Your task to perform on an android device: see tabs open on other devices in the chrome app Image 0: 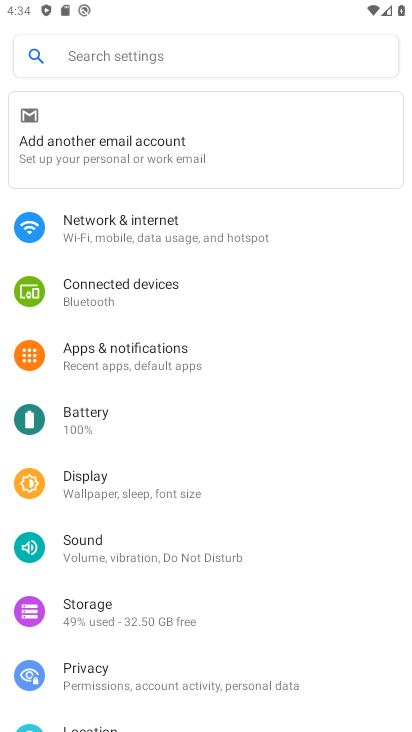
Step 0: press home button
Your task to perform on an android device: see tabs open on other devices in the chrome app Image 1: 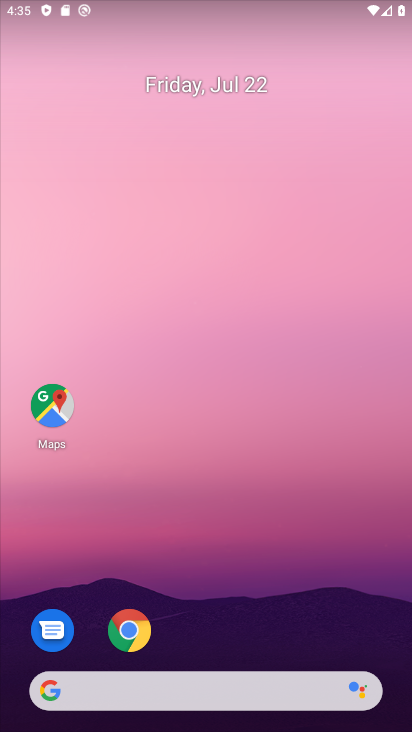
Step 1: click (122, 631)
Your task to perform on an android device: see tabs open on other devices in the chrome app Image 2: 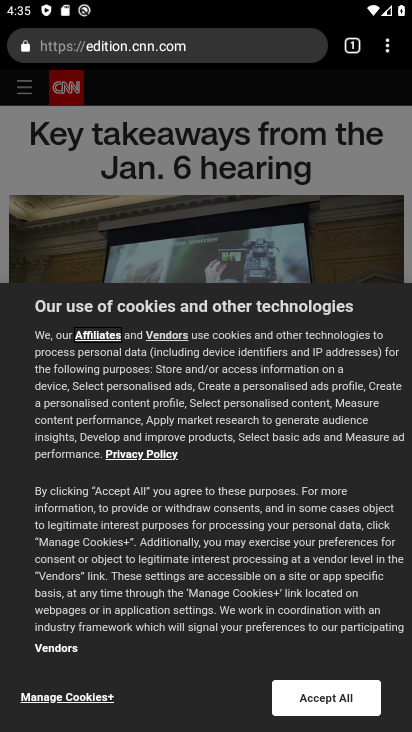
Step 2: click (390, 48)
Your task to perform on an android device: see tabs open on other devices in the chrome app Image 3: 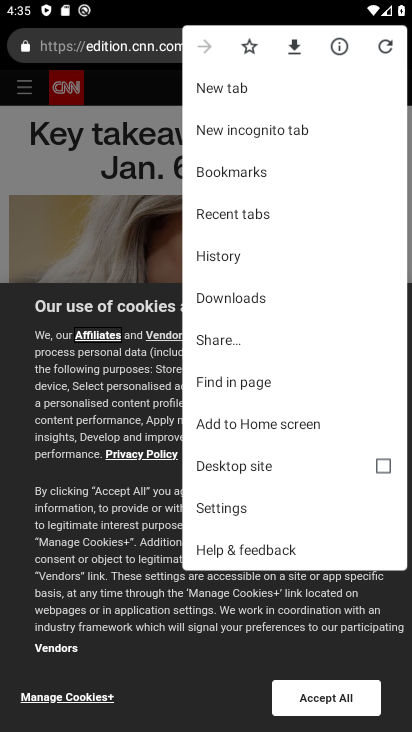
Step 3: click (246, 222)
Your task to perform on an android device: see tabs open on other devices in the chrome app Image 4: 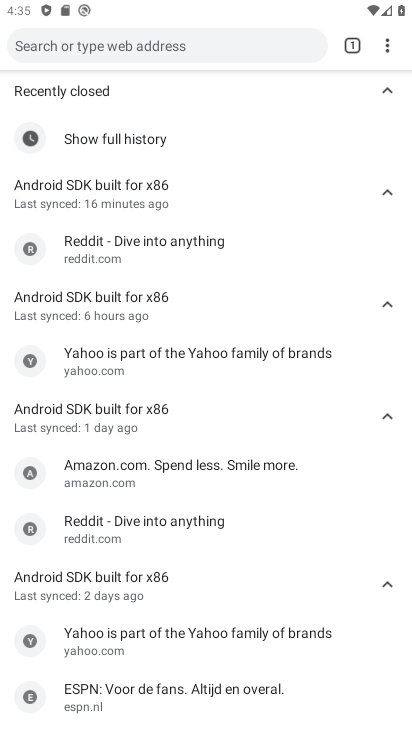
Step 4: task complete